Your task to perform on an android device: Open the map Image 0: 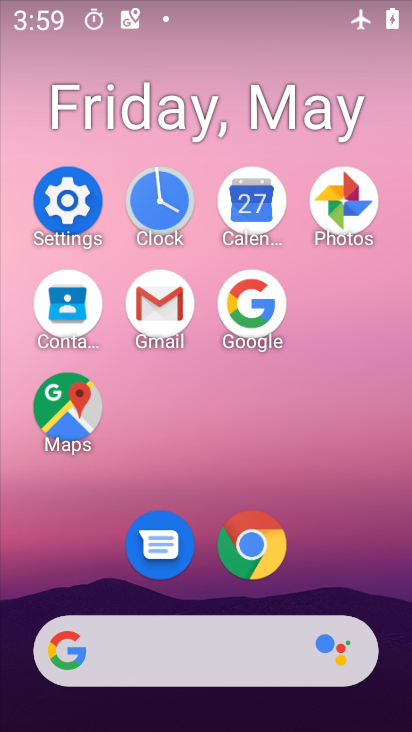
Step 0: click (81, 415)
Your task to perform on an android device: Open the map Image 1: 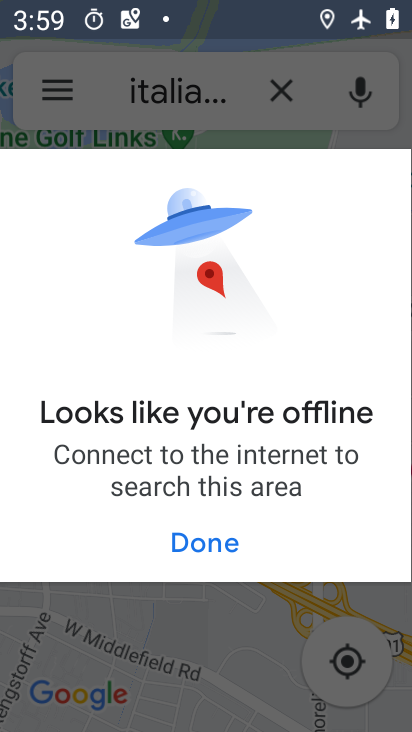
Step 1: task complete